Your task to perform on an android device: toggle data saver in the chrome app Image 0: 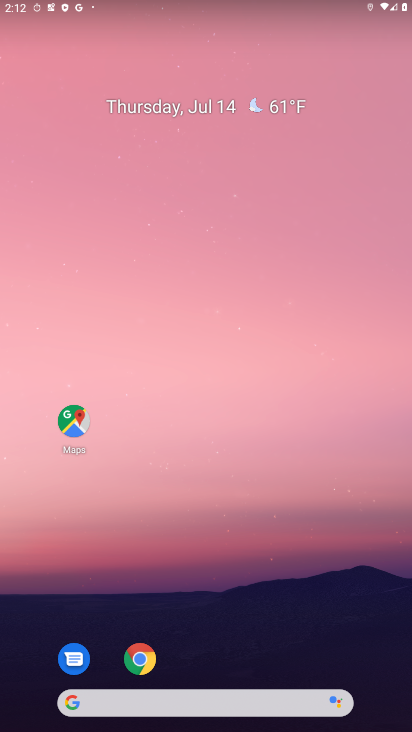
Step 0: drag from (228, 209) to (222, 493)
Your task to perform on an android device: toggle data saver in the chrome app Image 1: 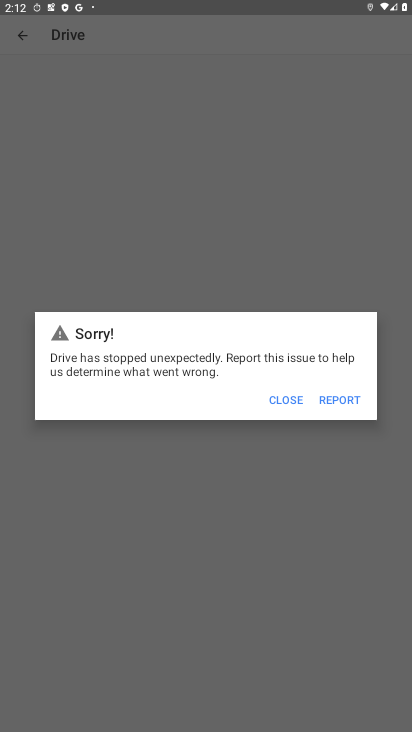
Step 1: click (287, 421)
Your task to perform on an android device: toggle data saver in the chrome app Image 2: 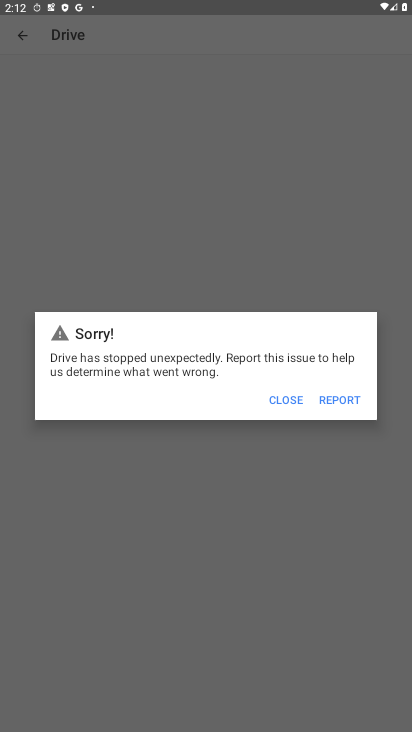
Step 2: press home button
Your task to perform on an android device: toggle data saver in the chrome app Image 3: 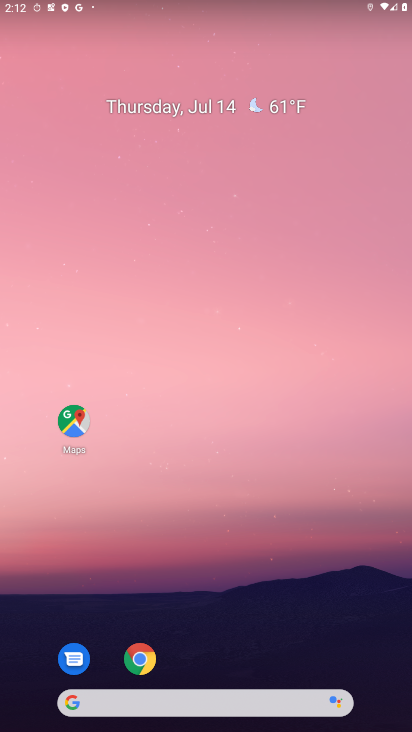
Step 3: click (139, 649)
Your task to perform on an android device: toggle data saver in the chrome app Image 4: 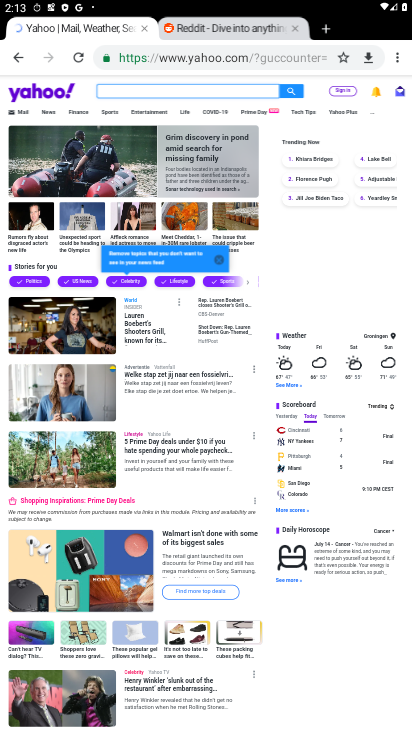
Step 4: drag from (397, 56) to (273, 419)
Your task to perform on an android device: toggle data saver in the chrome app Image 5: 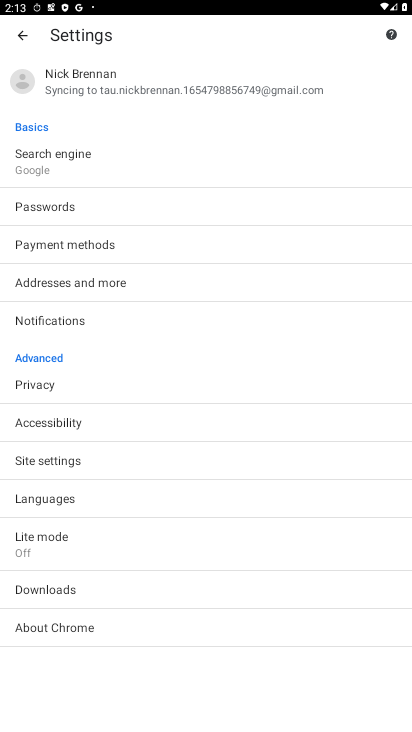
Step 5: drag from (273, 414) to (260, 251)
Your task to perform on an android device: toggle data saver in the chrome app Image 6: 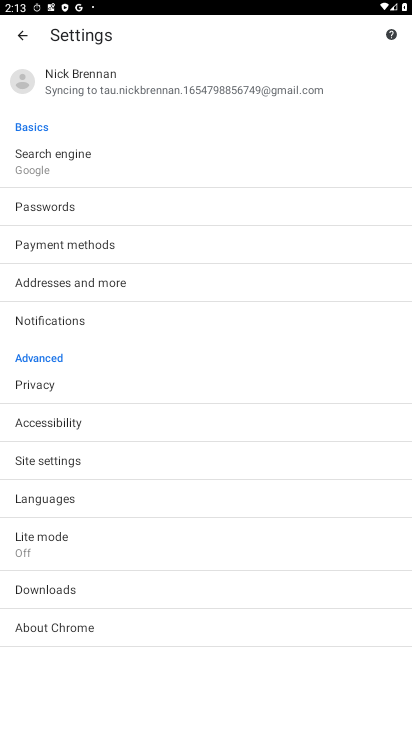
Step 6: click (70, 546)
Your task to perform on an android device: toggle data saver in the chrome app Image 7: 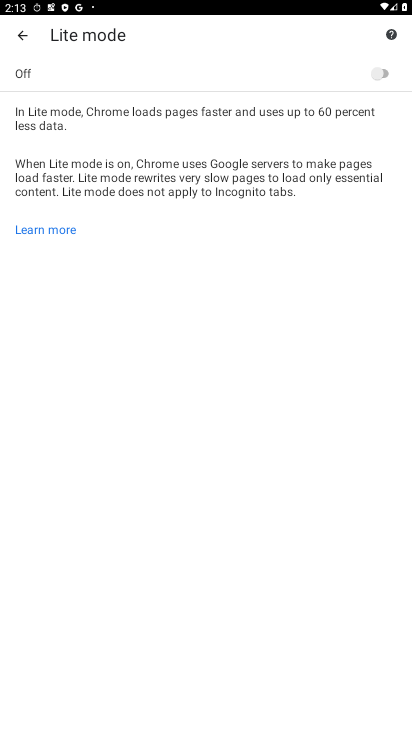
Step 7: click (363, 71)
Your task to perform on an android device: toggle data saver in the chrome app Image 8: 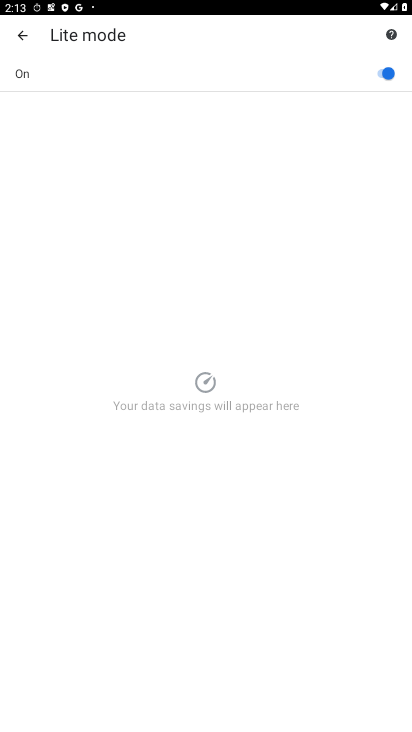
Step 8: task complete